Your task to perform on an android device: turn on airplane mode Image 0: 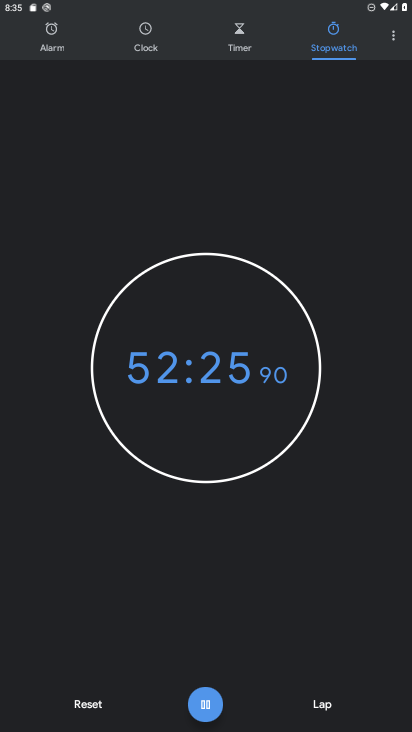
Step 0: press home button
Your task to perform on an android device: turn on airplane mode Image 1: 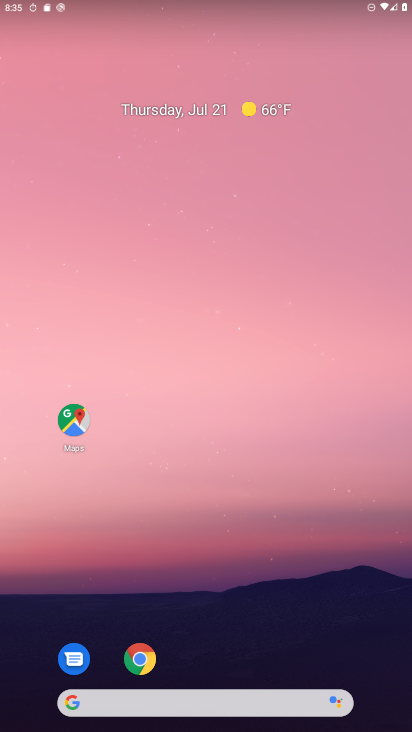
Step 1: drag from (188, 676) to (165, 259)
Your task to perform on an android device: turn on airplane mode Image 2: 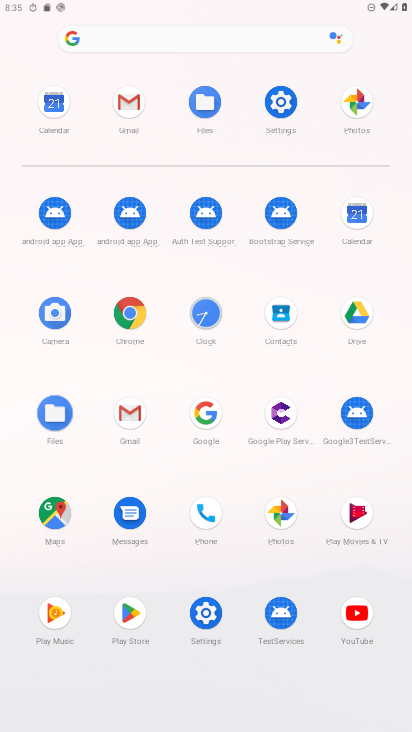
Step 2: click (281, 102)
Your task to perform on an android device: turn on airplane mode Image 3: 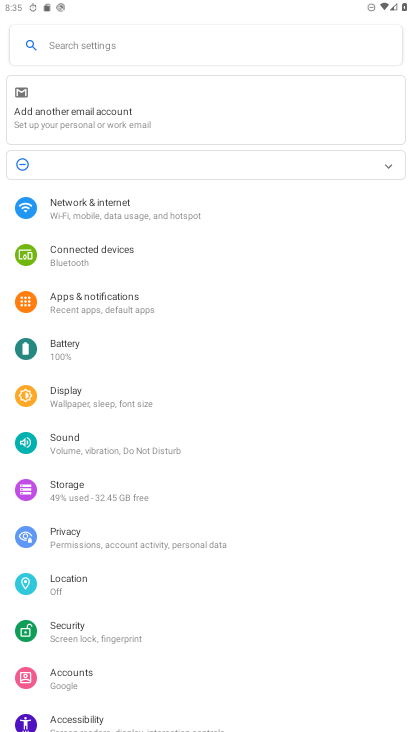
Step 3: click (125, 214)
Your task to perform on an android device: turn on airplane mode Image 4: 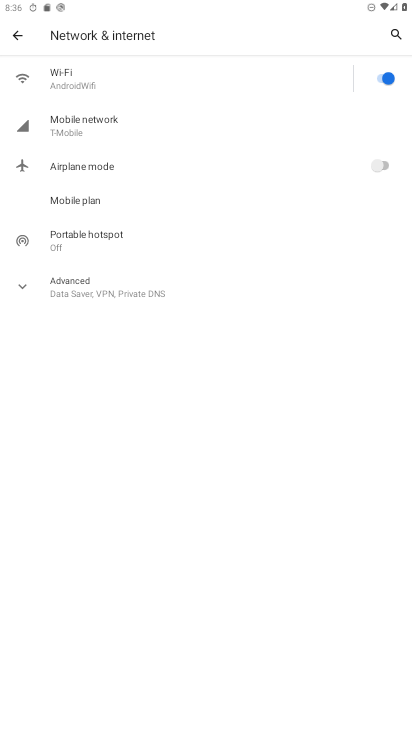
Step 4: click (120, 166)
Your task to perform on an android device: turn on airplane mode Image 5: 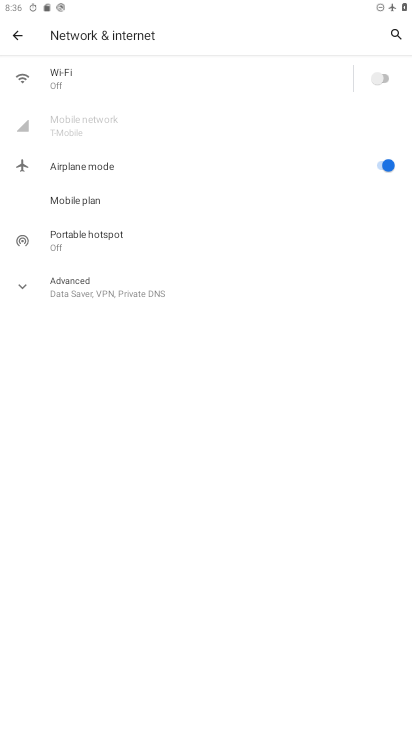
Step 5: task complete